Your task to perform on an android device: Is it going to rain tomorrow? Image 0: 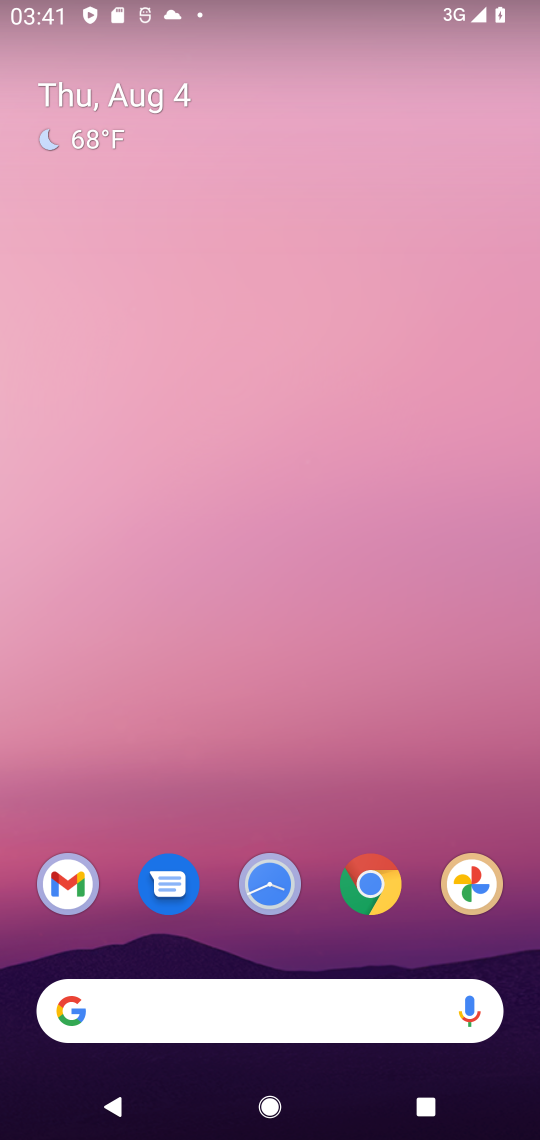
Step 0: press home button
Your task to perform on an android device: Is it going to rain tomorrow? Image 1: 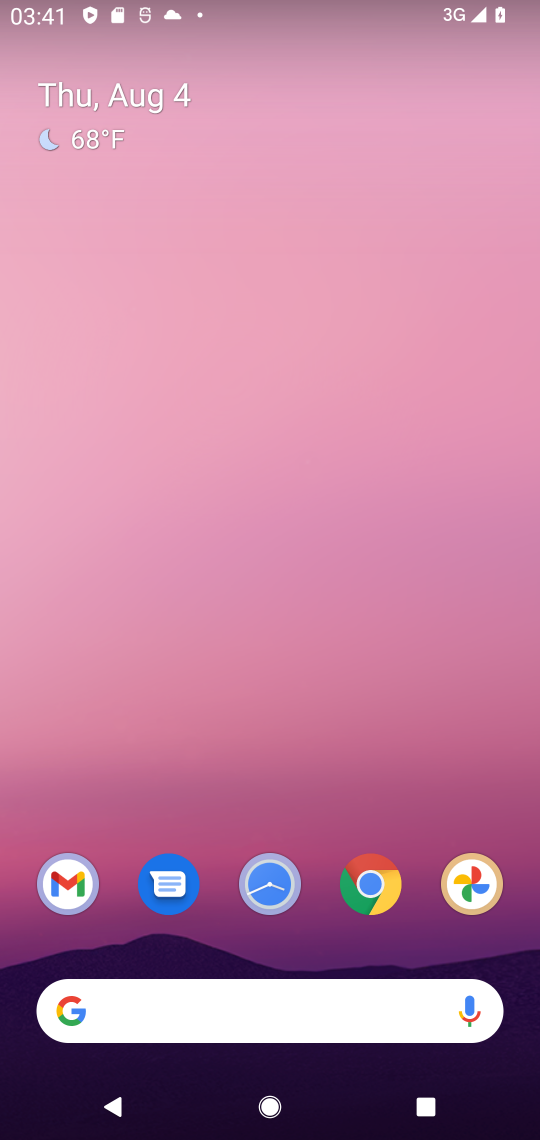
Step 1: click (323, 1019)
Your task to perform on an android device: Is it going to rain tomorrow? Image 2: 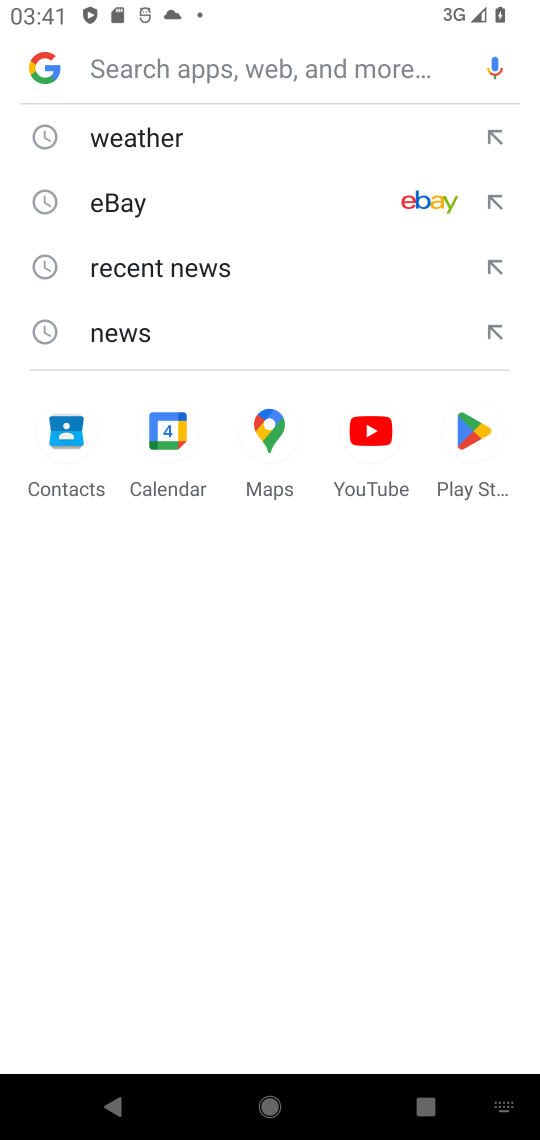
Step 2: click (158, 137)
Your task to perform on an android device: Is it going to rain tomorrow? Image 3: 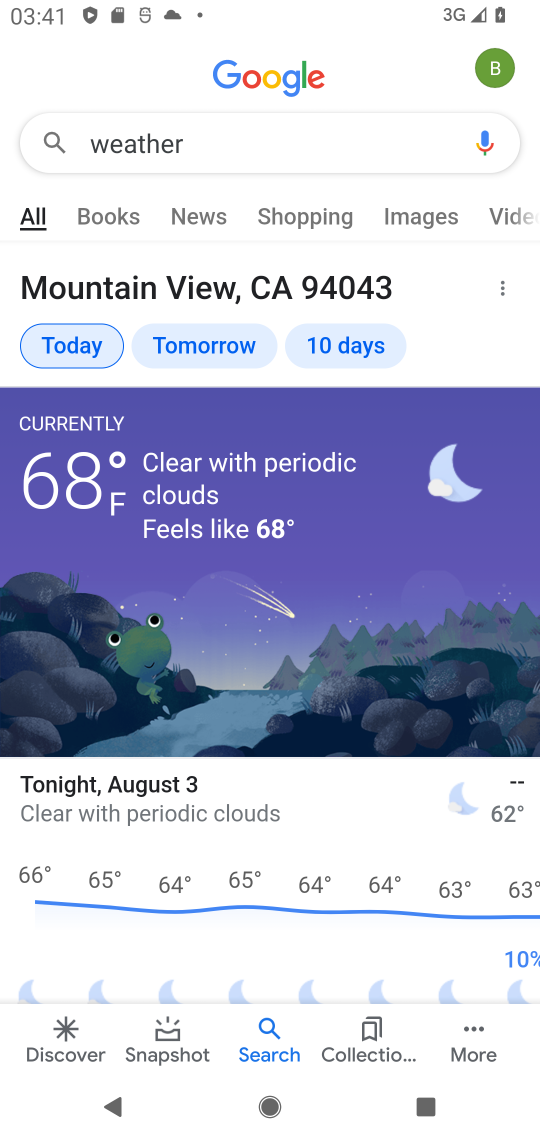
Step 3: click (221, 341)
Your task to perform on an android device: Is it going to rain tomorrow? Image 4: 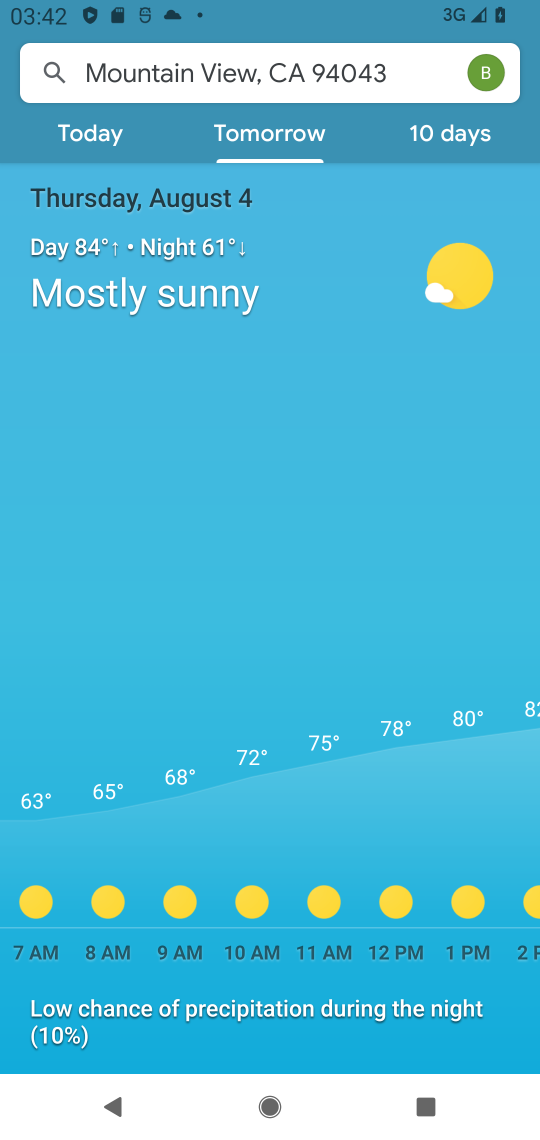
Step 4: task complete